Your task to perform on an android device: Go to eBay Image 0: 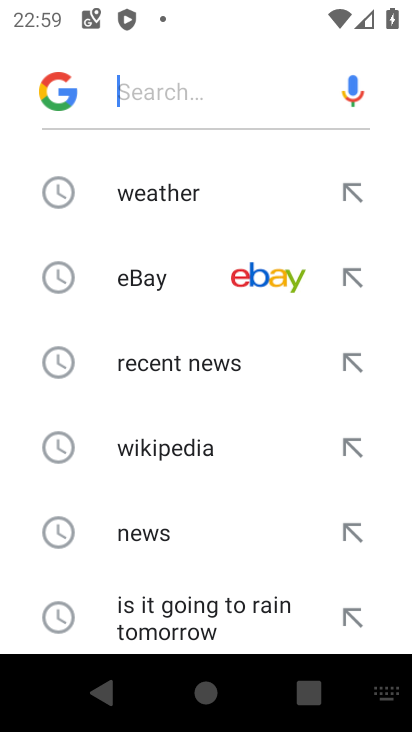
Step 0: press home button
Your task to perform on an android device: Go to eBay Image 1: 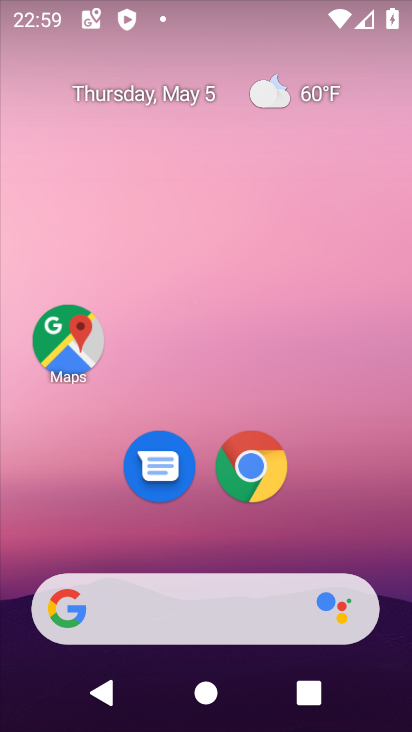
Step 1: drag from (210, 573) to (209, 248)
Your task to perform on an android device: Go to eBay Image 2: 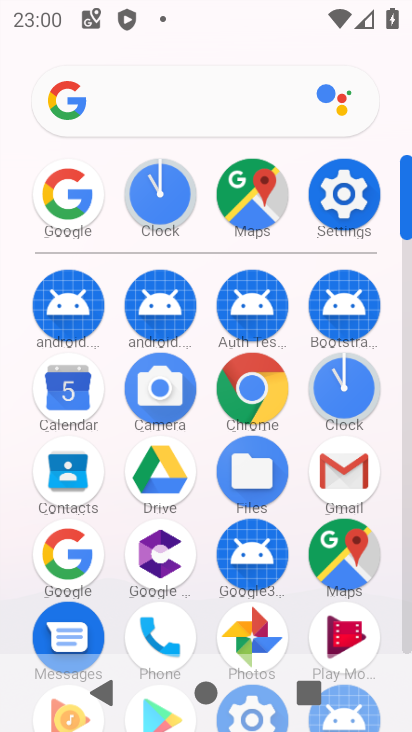
Step 2: click (243, 390)
Your task to perform on an android device: Go to eBay Image 3: 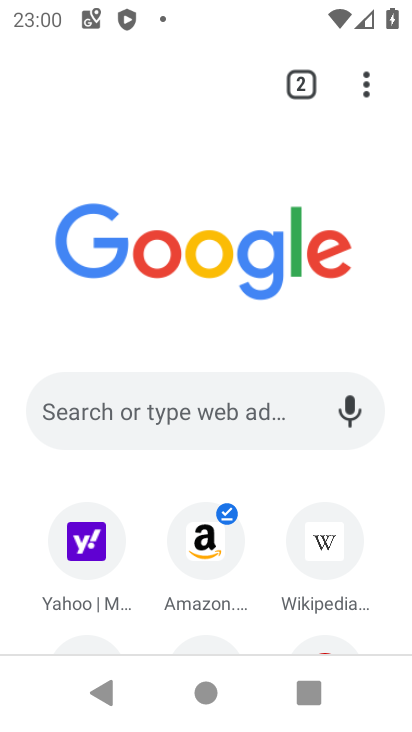
Step 3: drag from (230, 644) to (241, 374)
Your task to perform on an android device: Go to eBay Image 4: 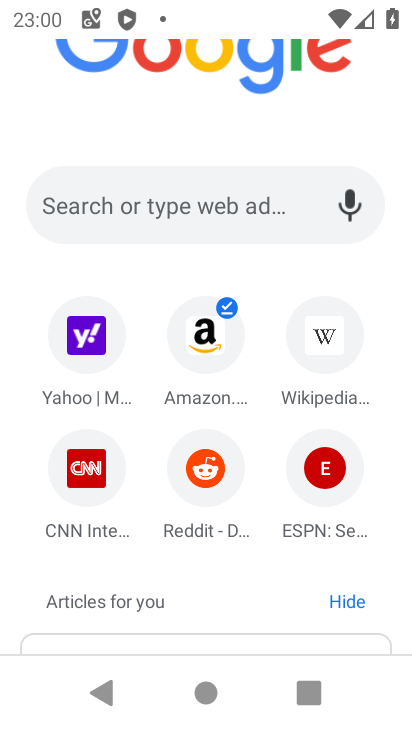
Step 4: click (119, 195)
Your task to perform on an android device: Go to eBay Image 5: 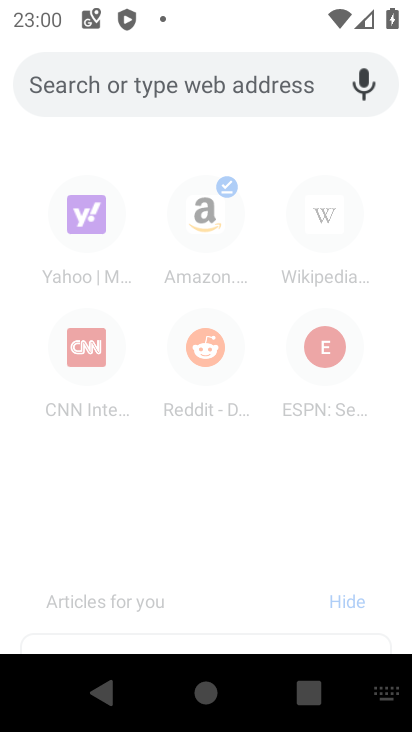
Step 5: type "ebay"
Your task to perform on an android device: Go to eBay Image 6: 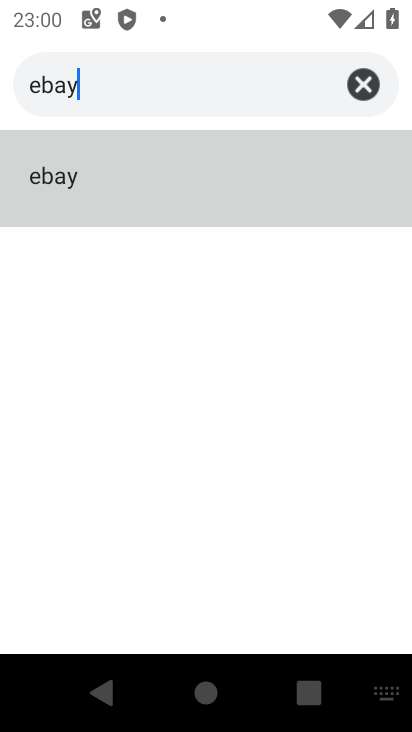
Step 6: click (47, 182)
Your task to perform on an android device: Go to eBay Image 7: 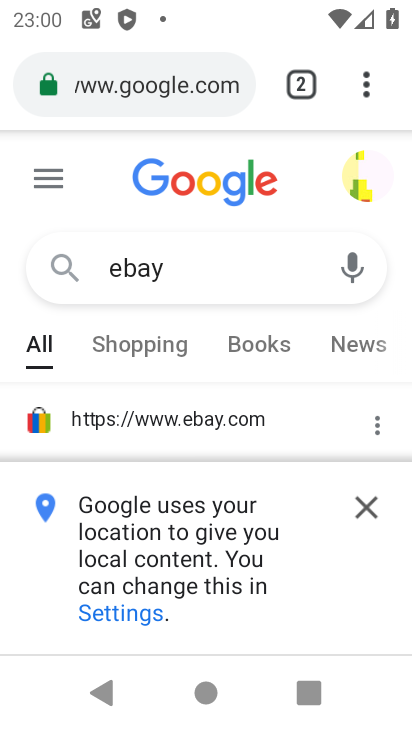
Step 7: click (362, 516)
Your task to perform on an android device: Go to eBay Image 8: 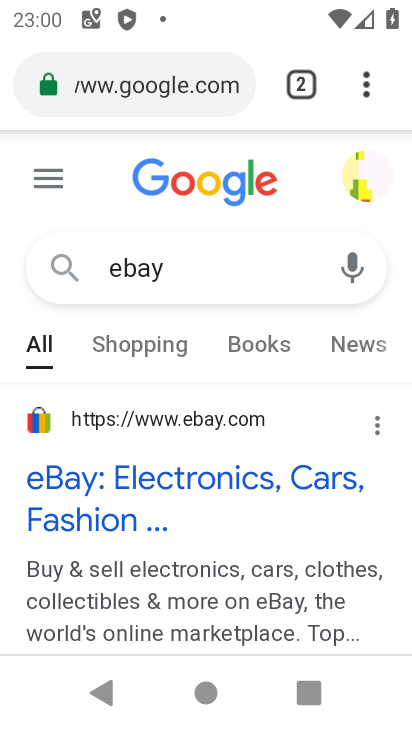
Step 8: click (186, 491)
Your task to perform on an android device: Go to eBay Image 9: 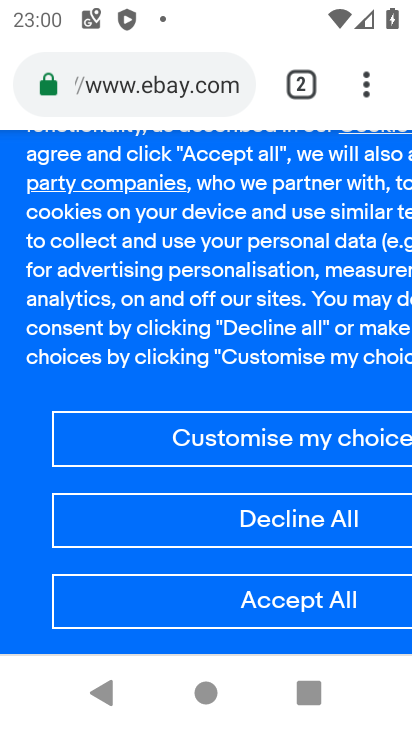
Step 9: task complete